Your task to perform on an android device: Go to Reddit.com Image 0: 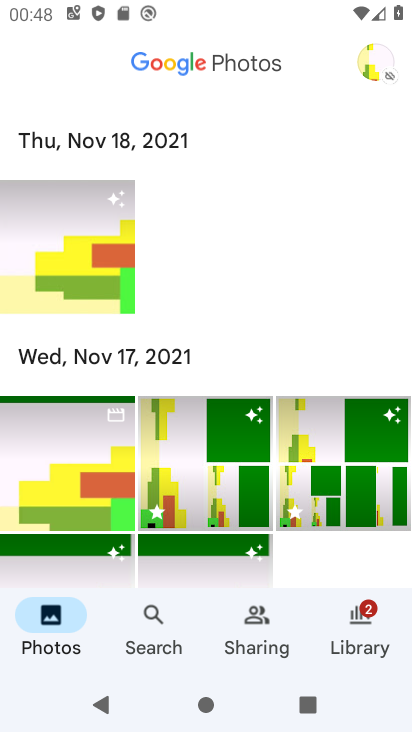
Step 0: press home button
Your task to perform on an android device: Go to Reddit.com Image 1: 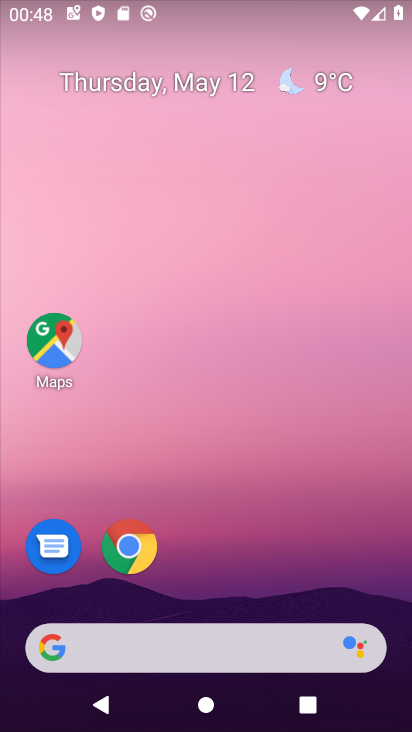
Step 1: drag from (171, 605) to (196, 131)
Your task to perform on an android device: Go to Reddit.com Image 2: 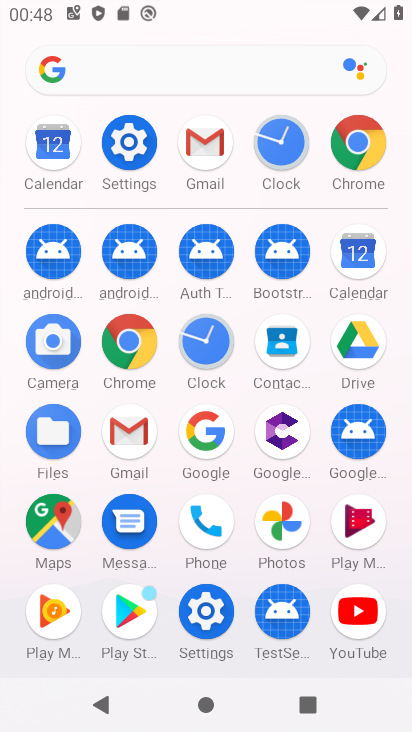
Step 2: click (124, 344)
Your task to perform on an android device: Go to Reddit.com Image 3: 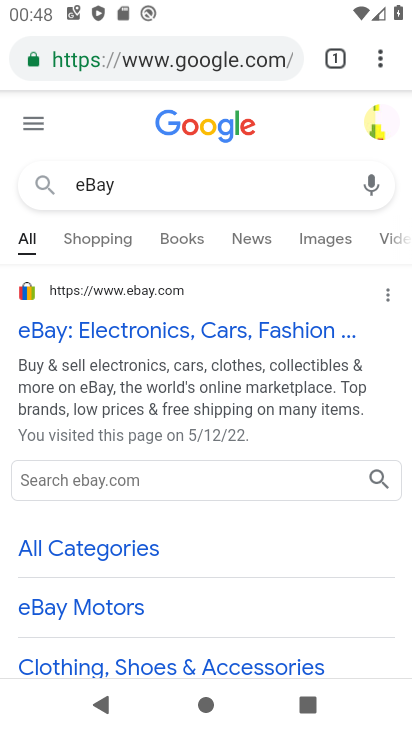
Step 3: click (141, 61)
Your task to perform on an android device: Go to Reddit.com Image 4: 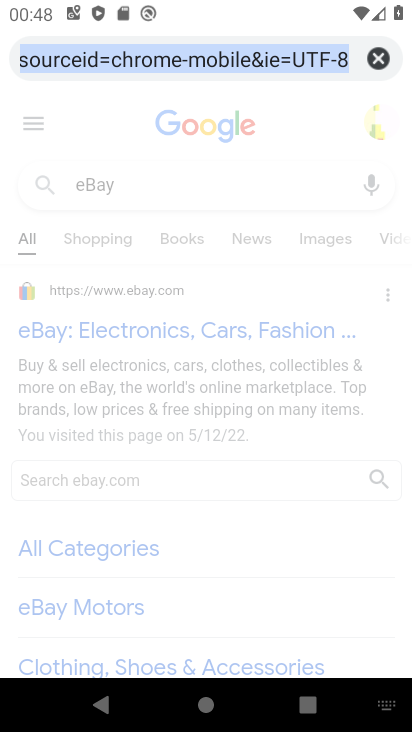
Step 4: type "Reddit.com"
Your task to perform on an android device: Go to Reddit.com Image 5: 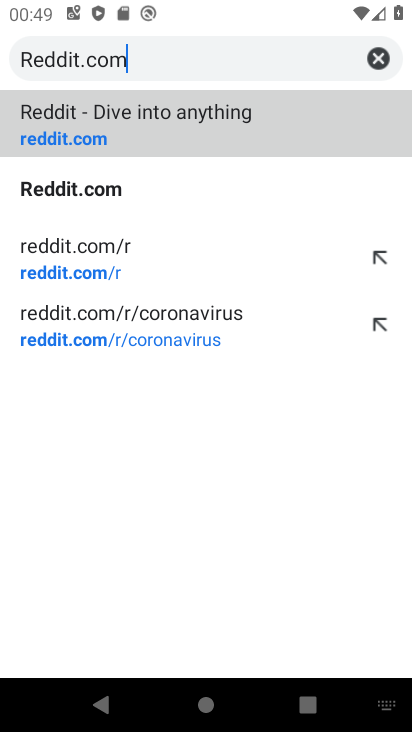
Step 5: click (80, 192)
Your task to perform on an android device: Go to Reddit.com Image 6: 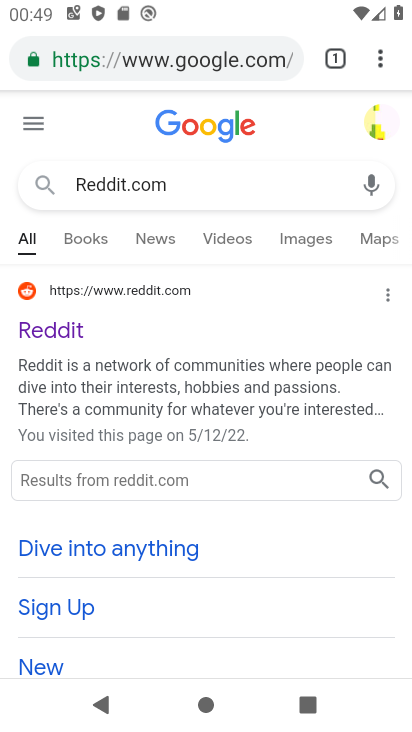
Step 6: task complete